Your task to perform on an android device: turn off sleep mode Image 0: 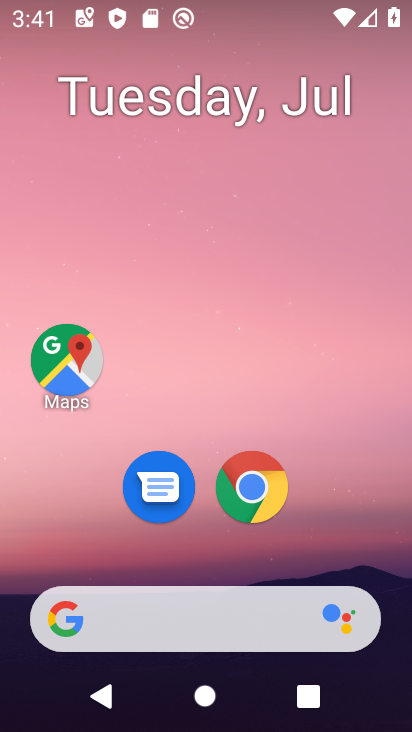
Step 0: drag from (156, 551) to (229, 30)
Your task to perform on an android device: turn off sleep mode Image 1: 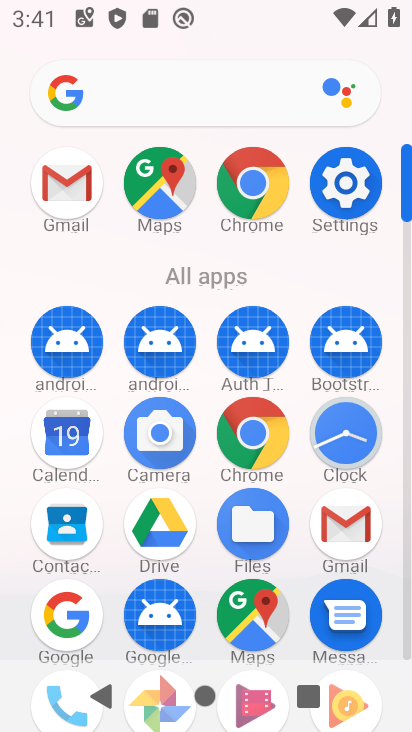
Step 1: click (343, 185)
Your task to perform on an android device: turn off sleep mode Image 2: 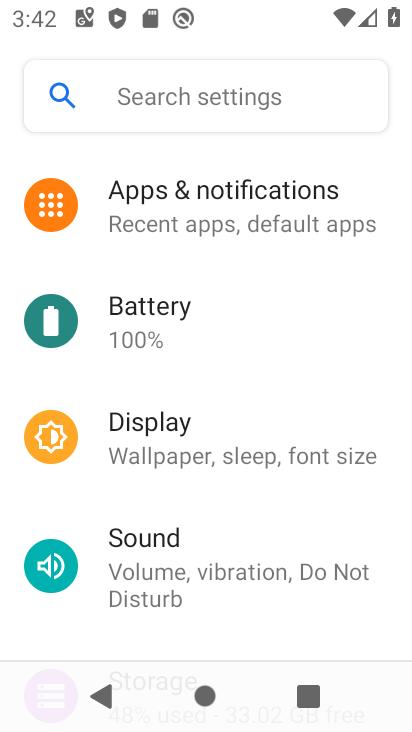
Step 2: click (163, 91)
Your task to perform on an android device: turn off sleep mode Image 3: 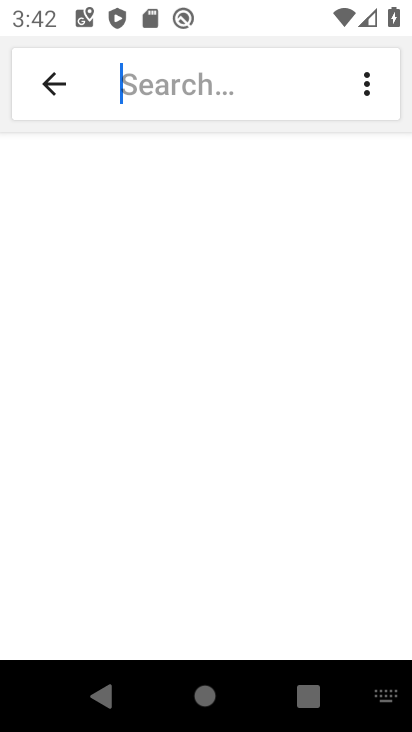
Step 3: click (165, 90)
Your task to perform on an android device: turn off sleep mode Image 4: 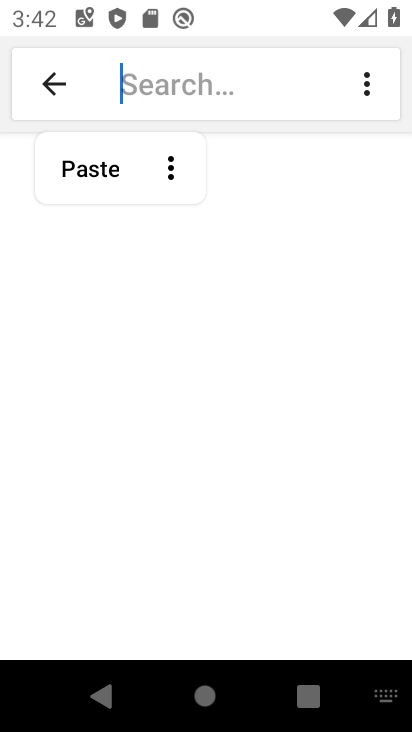
Step 4: type "sleep mode"
Your task to perform on an android device: turn off sleep mode Image 5: 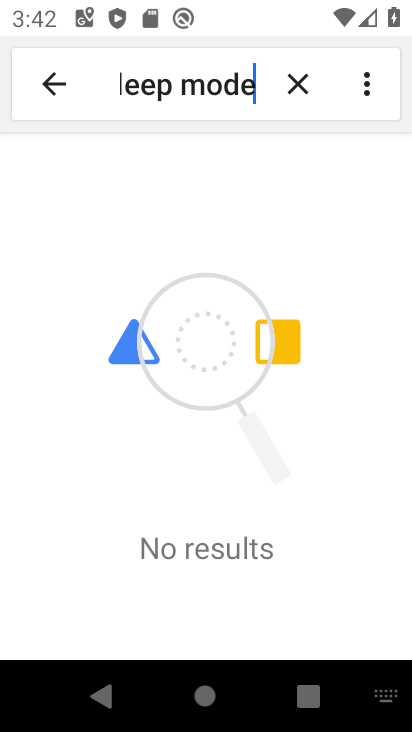
Step 5: task complete